Your task to perform on an android device: change text size in settings app Image 0: 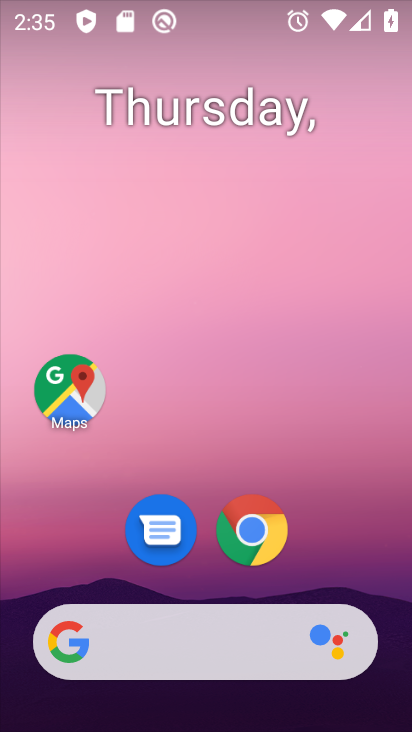
Step 0: drag from (224, 718) to (229, 122)
Your task to perform on an android device: change text size in settings app Image 1: 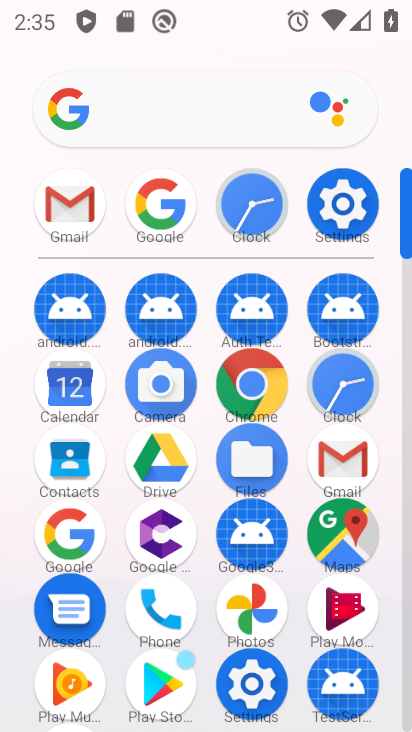
Step 1: click (335, 206)
Your task to perform on an android device: change text size in settings app Image 2: 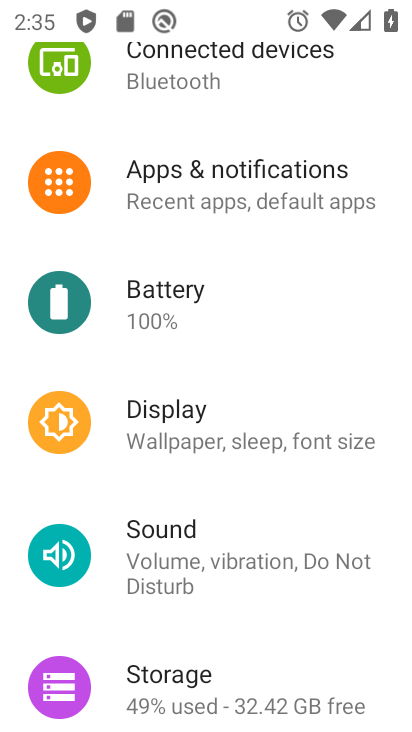
Step 2: drag from (322, 668) to (250, 594)
Your task to perform on an android device: change text size in settings app Image 3: 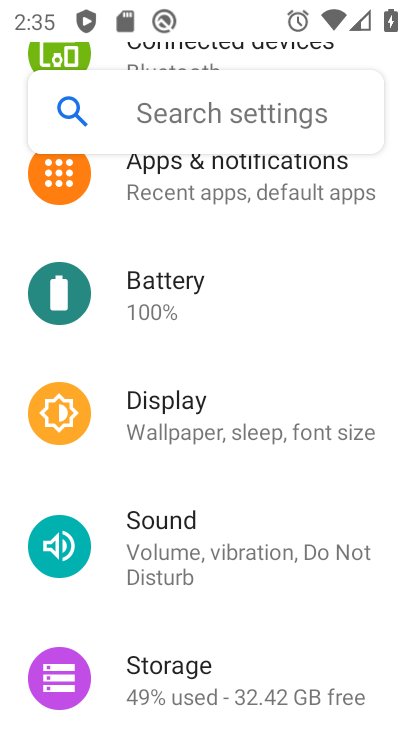
Step 3: click (331, 431)
Your task to perform on an android device: change text size in settings app Image 4: 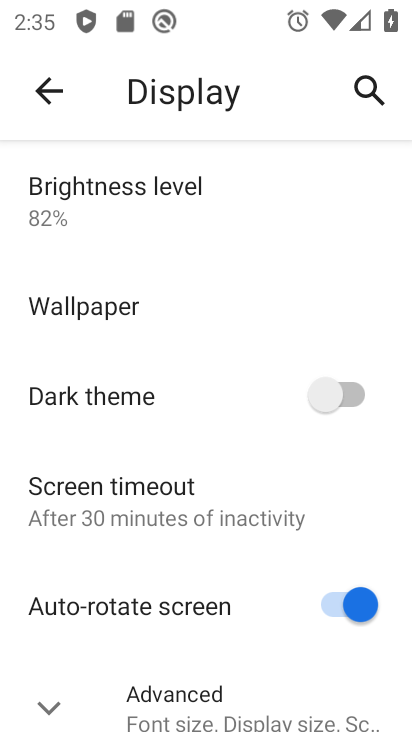
Step 4: click (329, 699)
Your task to perform on an android device: change text size in settings app Image 5: 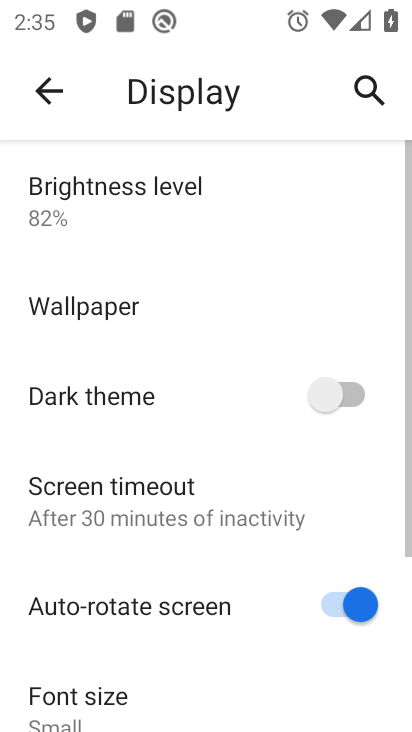
Step 5: drag from (157, 644) to (216, 108)
Your task to perform on an android device: change text size in settings app Image 6: 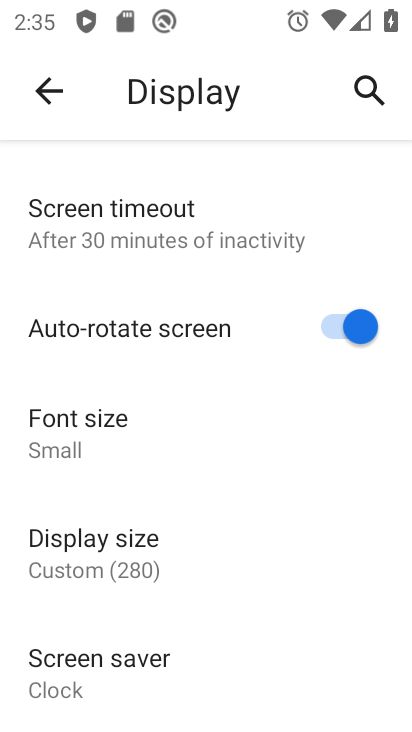
Step 6: click (164, 443)
Your task to perform on an android device: change text size in settings app Image 7: 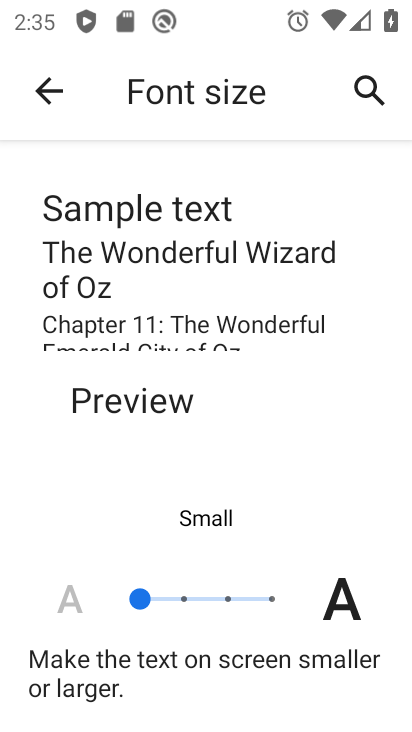
Step 7: click (187, 602)
Your task to perform on an android device: change text size in settings app Image 8: 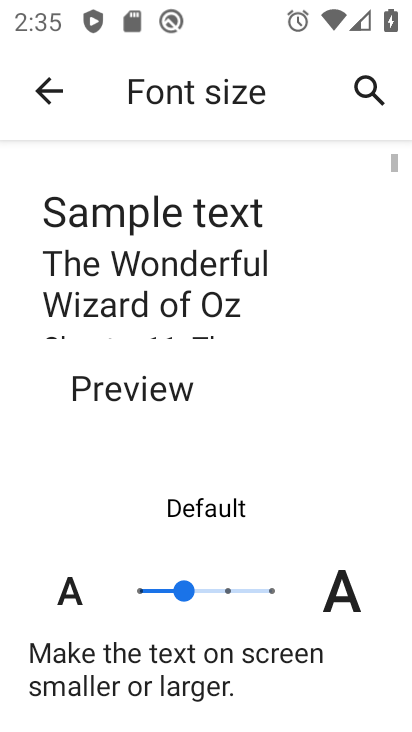
Step 8: task complete